Your task to perform on an android device: search for starred emails in the gmail app Image 0: 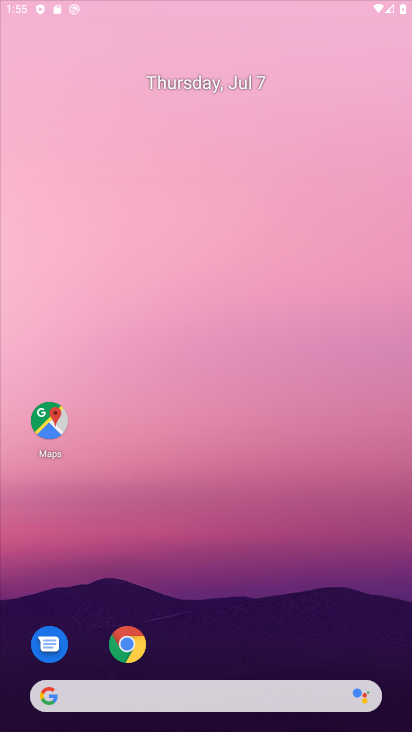
Step 0: drag from (202, 488) to (197, 90)
Your task to perform on an android device: search for starred emails in the gmail app Image 1: 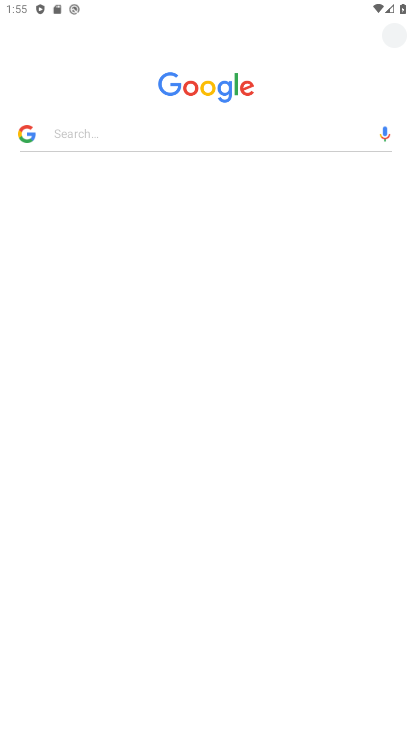
Step 1: press home button
Your task to perform on an android device: search for starred emails in the gmail app Image 2: 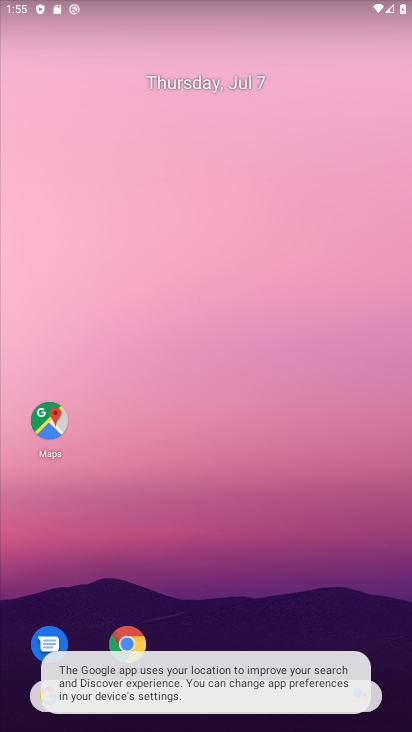
Step 2: drag from (234, 660) to (194, 81)
Your task to perform on an android device: search for starred emails in the gmail app Image 3: 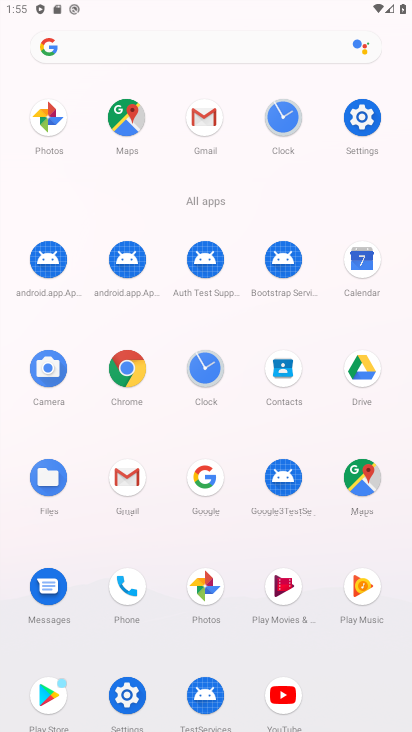
Step 3: click (120, 484)
Your task to perform on an android device: search for starred emails in the gmail app Image 4: 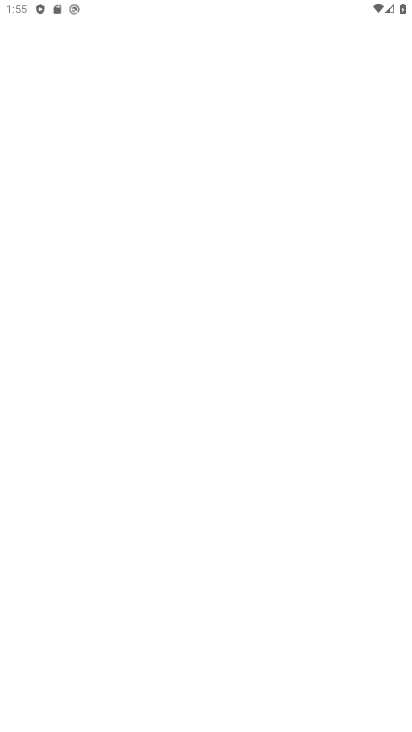
Step 4: drag from (138, 124) to (157, 351)
Your task to perform on an android device: search for starred emails in the gmail app Image 5: 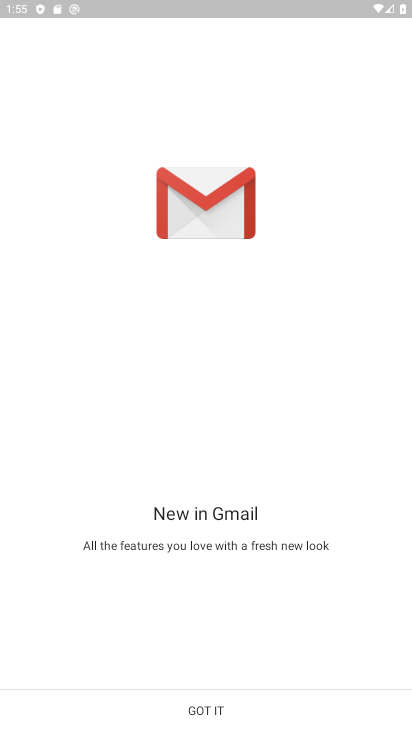
Step 5: click (250, 707)
Your task to perform on an android device: search for starred emails in the gmail app Image 6: 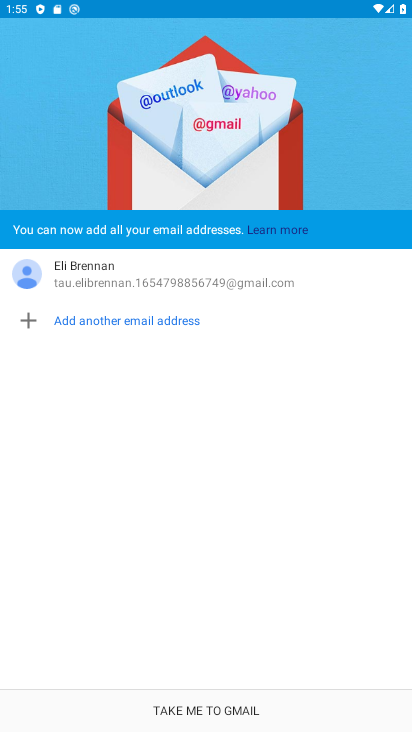
Step 6: click (206, 720)
Your task to perform on an android device: search for starred emails in the gmail app Image 7: 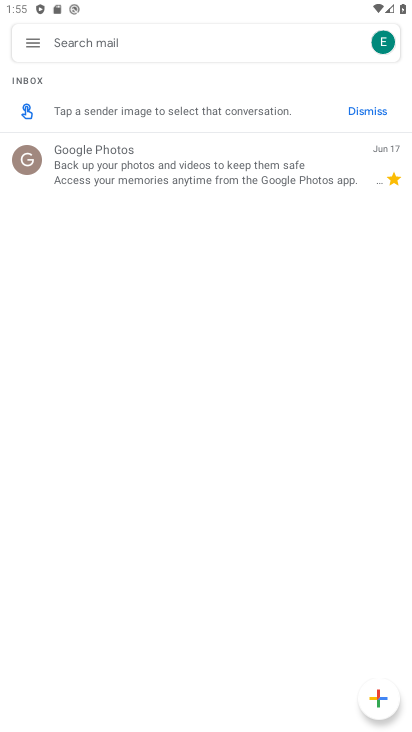
Step 7: task complete